Your task to perform on an android device: see sites visited before in the chrome app Image 0: 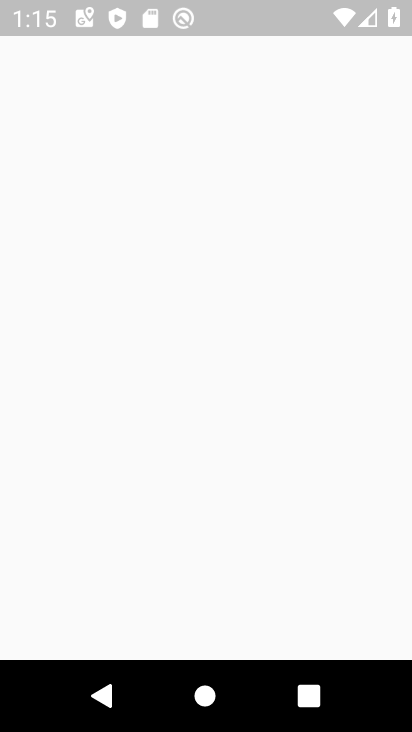
Step 0: press home button
Your task to perform on an android device: see sites visited before in the chrome app Image 1: 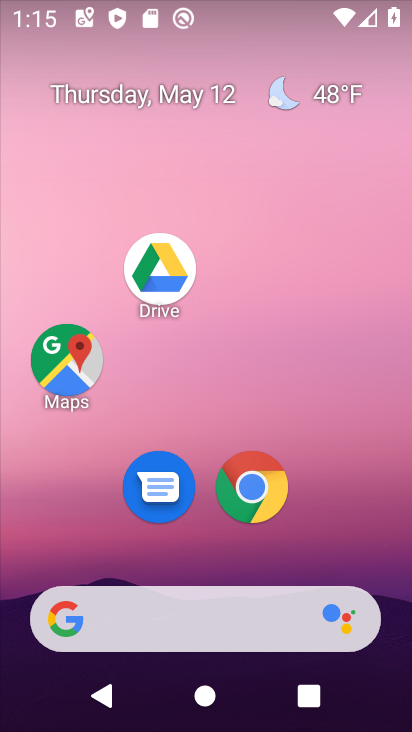
Step 1: click (261, 496)
Your task to perform on an android device: see sites visited before in the chrome app Image 2: 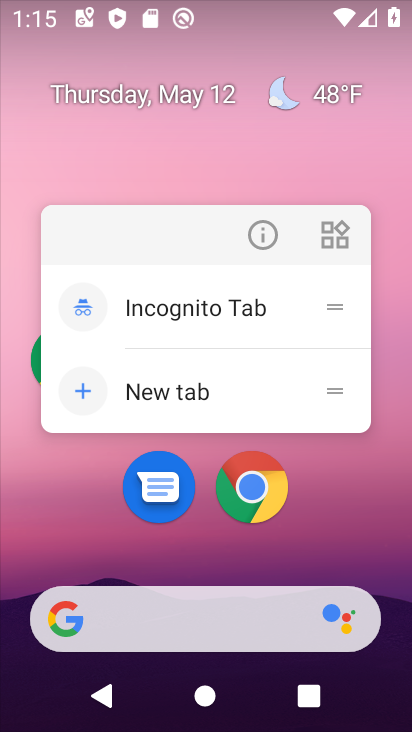
Step 2: click (260, 496)
Your task to perform on an android device: see sites visited before in the chrome app Image 3: 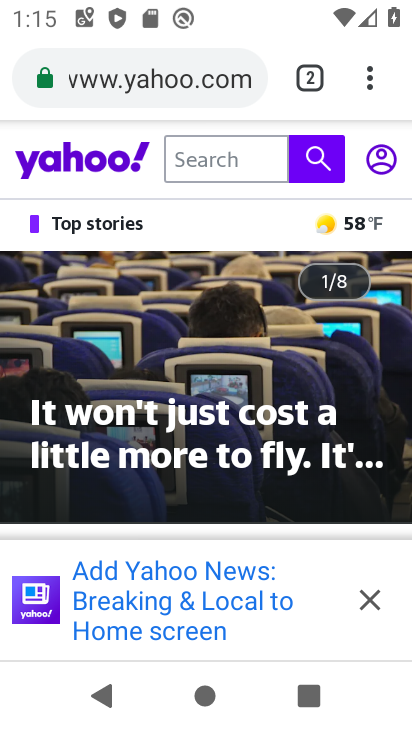
Step 3: click (369, 87)
Your task to perform on an android device: see sites visited before in the chrome app Image 4: 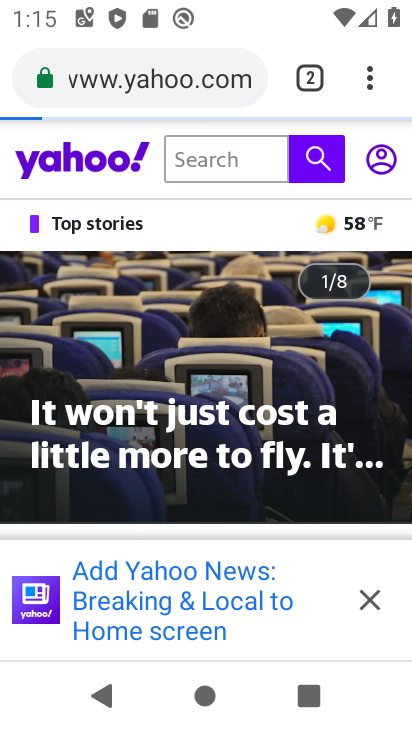
Step 4: task complete